Your task to perform on an android device: Go to battery settings Image 0: 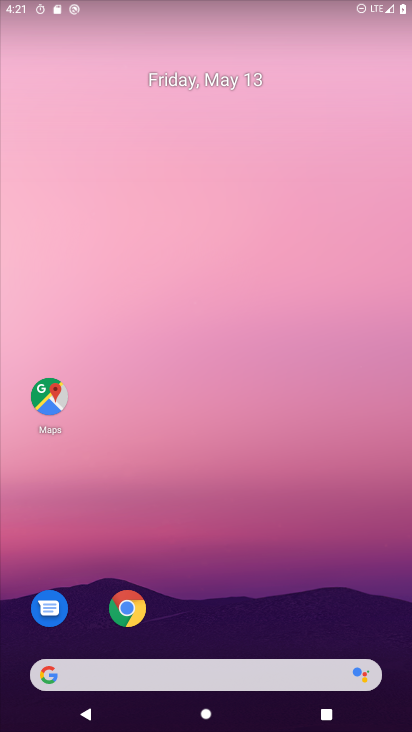
Step 0: drag from (208, 599) to (182, 112)
Your task to perform on an android device: Go to battery settings Image 1: 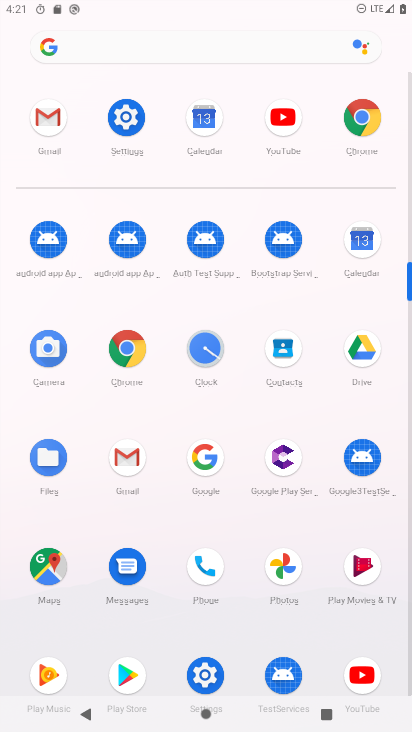
Step 1: click (209, 662)
Your task to perform on an android device: Go to battery settings Image 2: 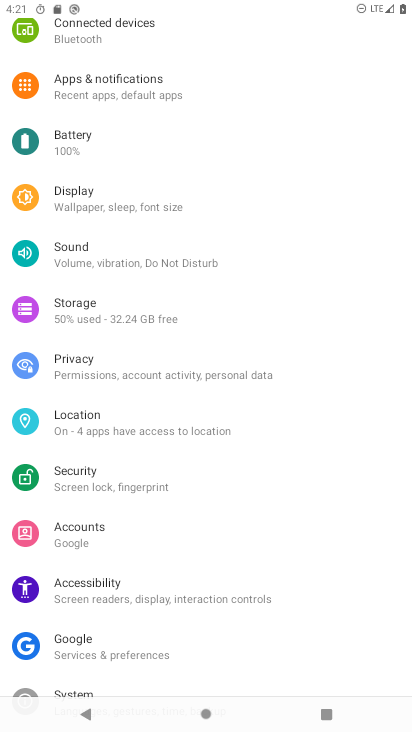
Step 2: click (66, 135)
Your task to perform on an android device: Go to battery settings Image 3: 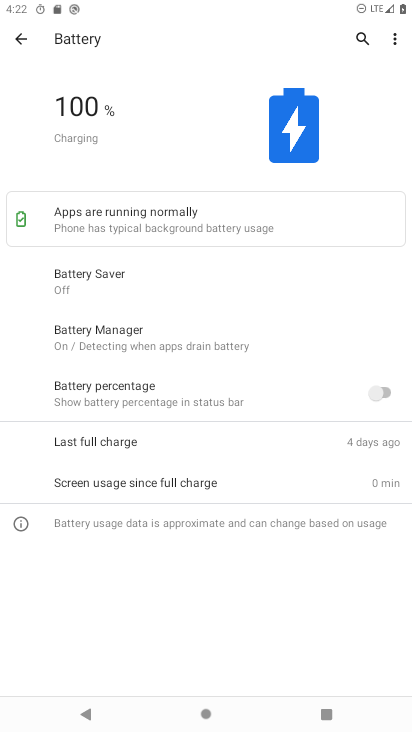
Step 3: task complete